Your task to perform on an android device: Go to Yahoo.com Image 0: 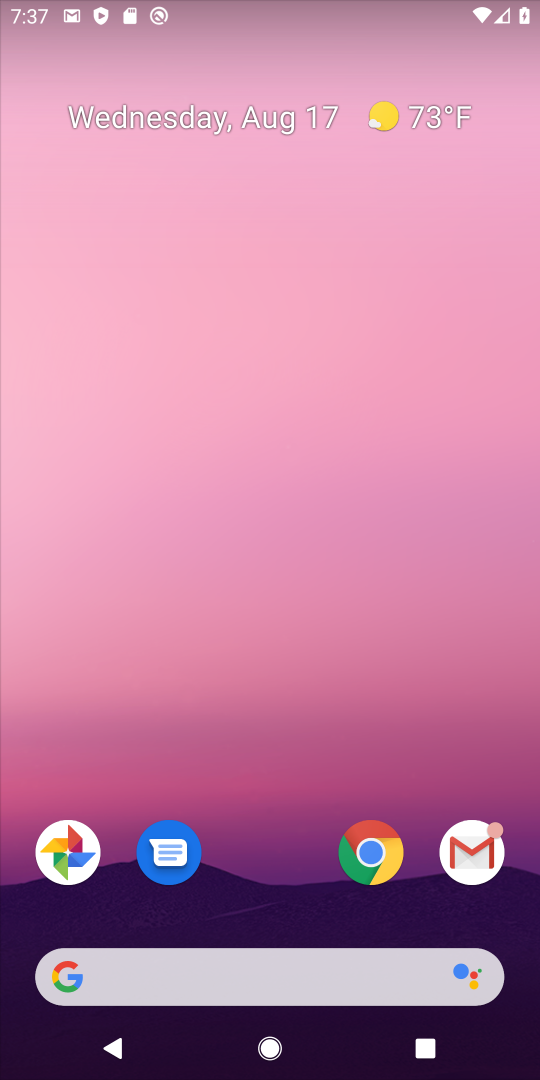
Step 0: press home button
Your task to perform on an android device: Go to Yahoo.com Image 1: 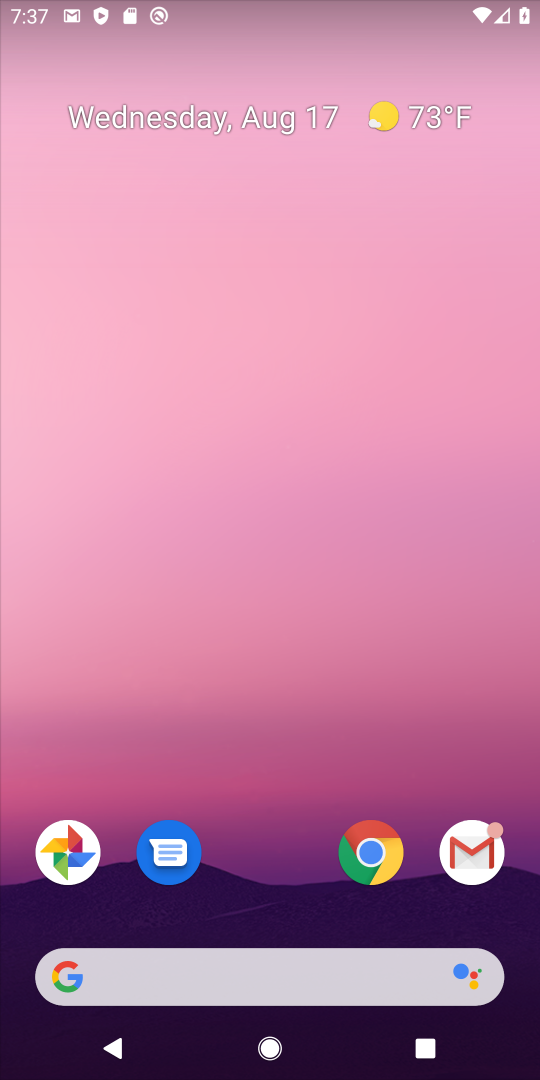
Step 1: click (372, 858)
Your task to perform on an android device: Go to Yahoo.com Image 2: 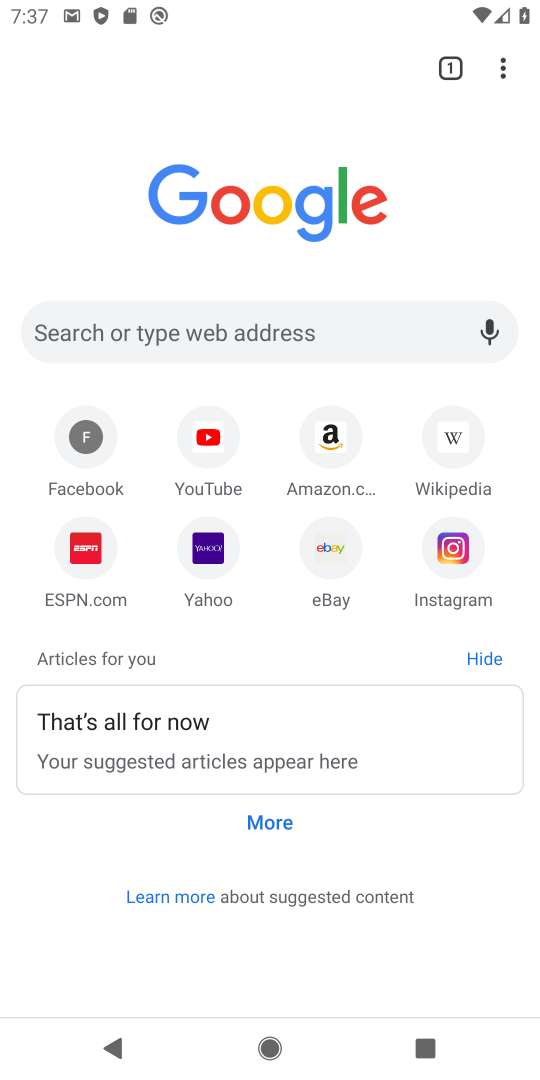
Step 2: click (209, 529)
Your task to perform on an android device: Go to Yahoo.com Image 3: 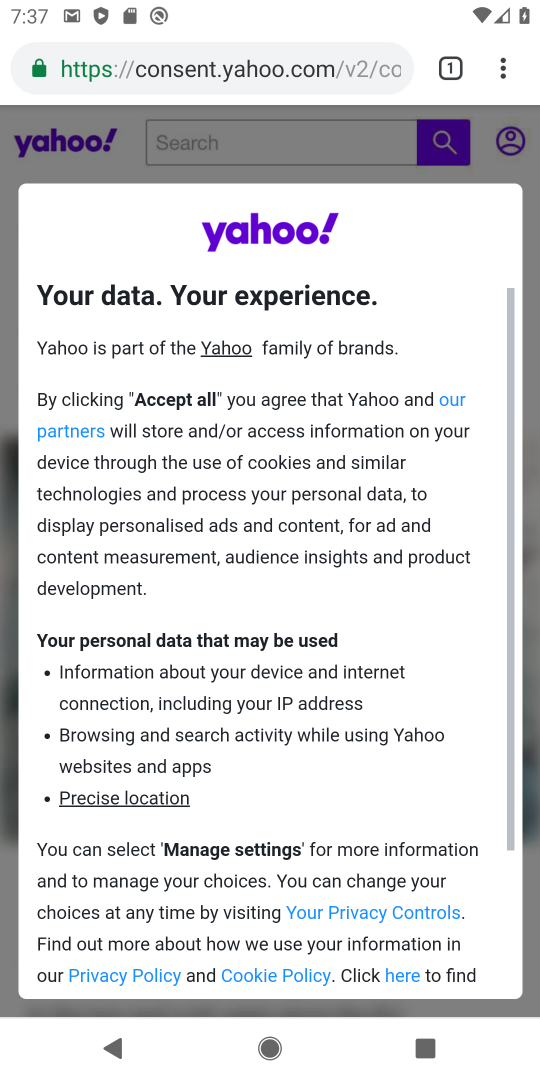
Step 3: drag from (398, 755) to (386, 117)
Your task to perform on an android device: Go to Yahoo.com Image 4: 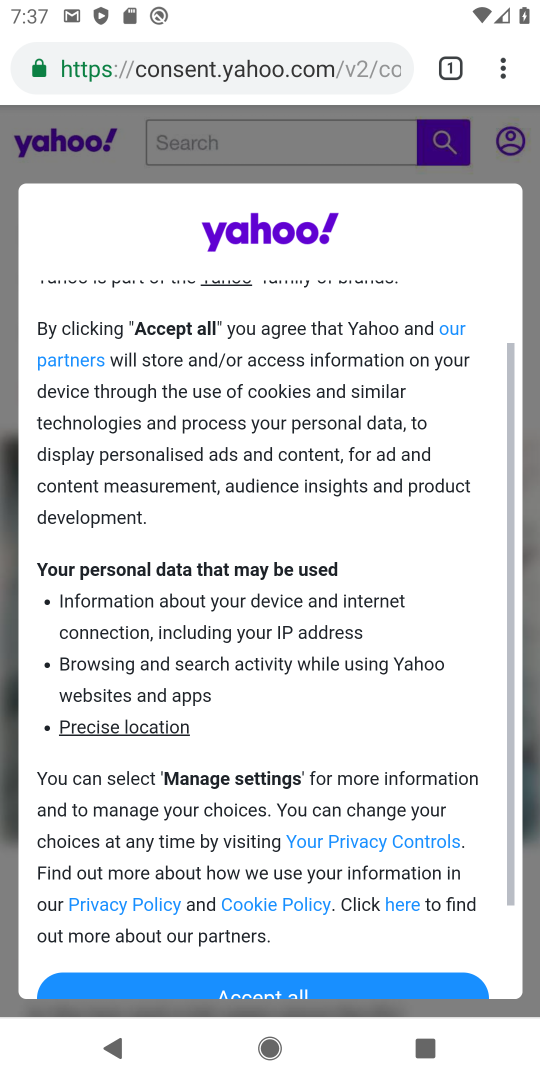
Step 4: drag from (297, 918) to (287, 586)
Your task to perform on an android device: Go to Yahoo.com Image 5: 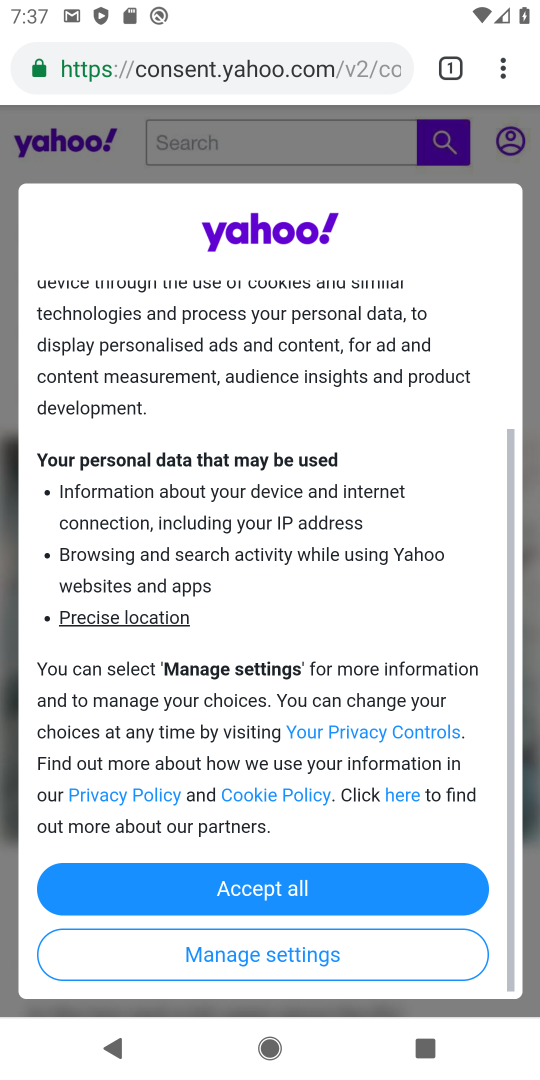
Step 5: click (274, 888)
Your task to perform on an android device: Go to Yahoo.com Image 6: 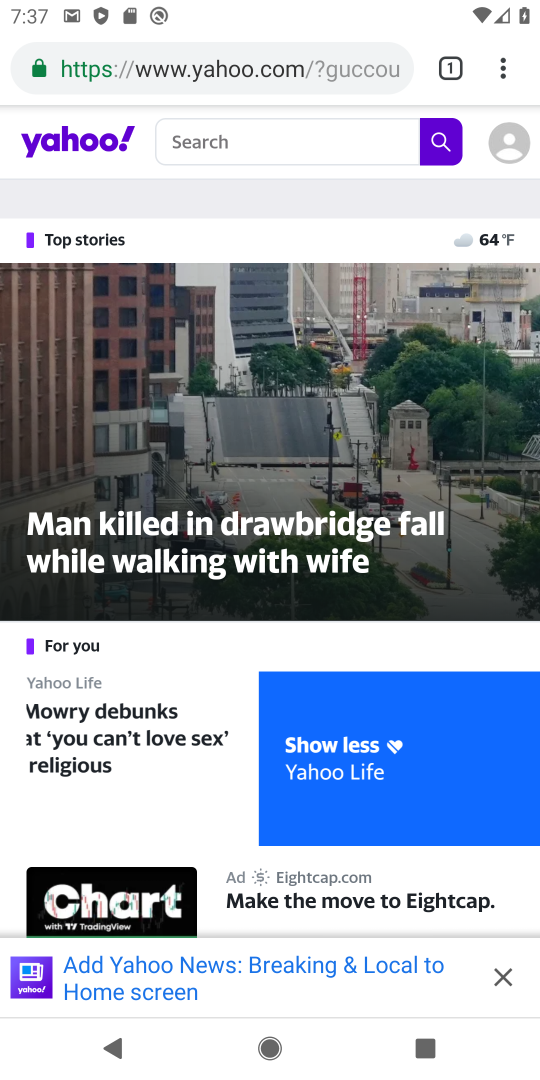
Step 6: task complete